Your task to perform on an android device: What is the recent news? Image 0: 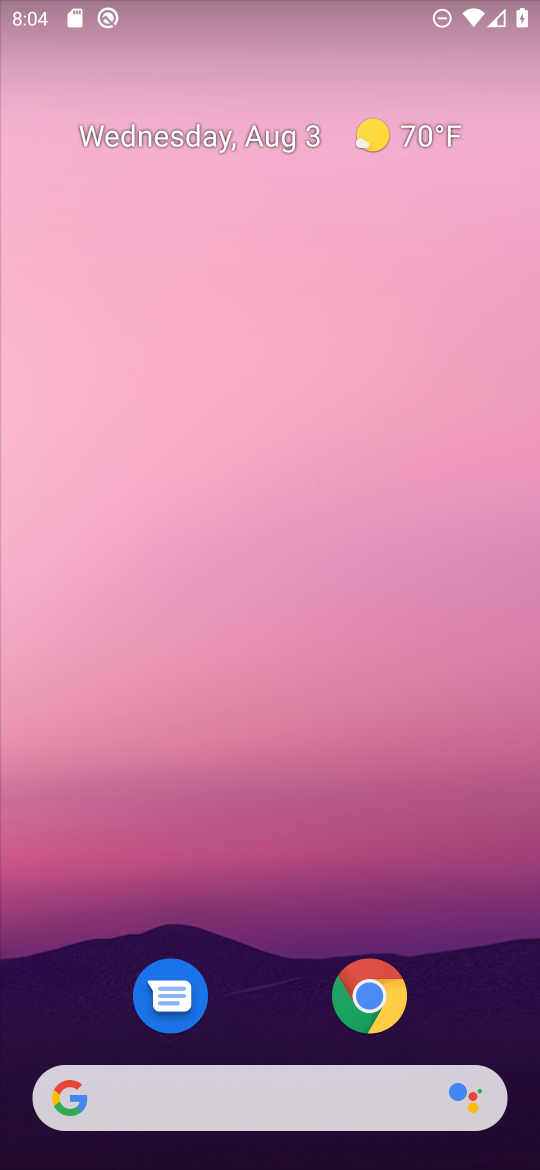
Step 0: click (306, 1098)
Your task to perform on an android device: What is the recent news? Image 1: 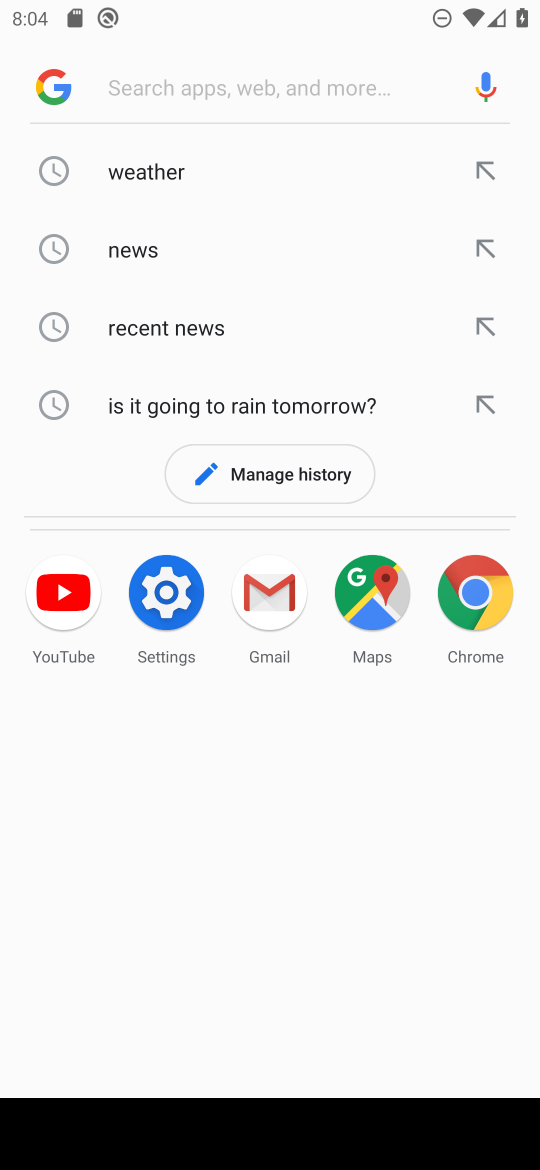
Step 1: click (164, 329)
Your task to perform on an android device: What is the recent news? Image 2: 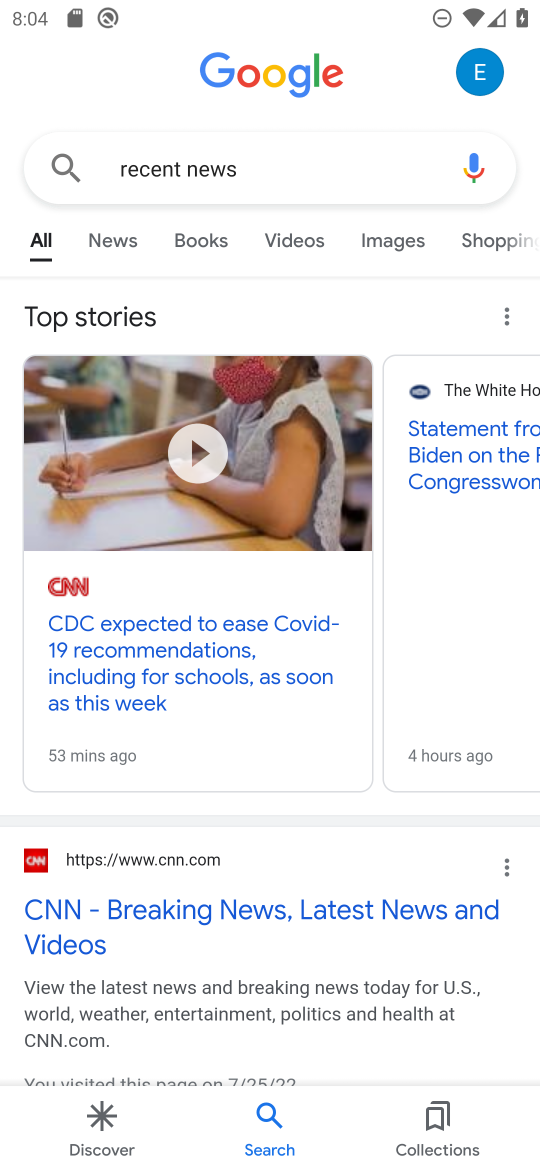
Step 2: task complete